Your task to perform on an android device: Do I have any events this weekend? Image 0: 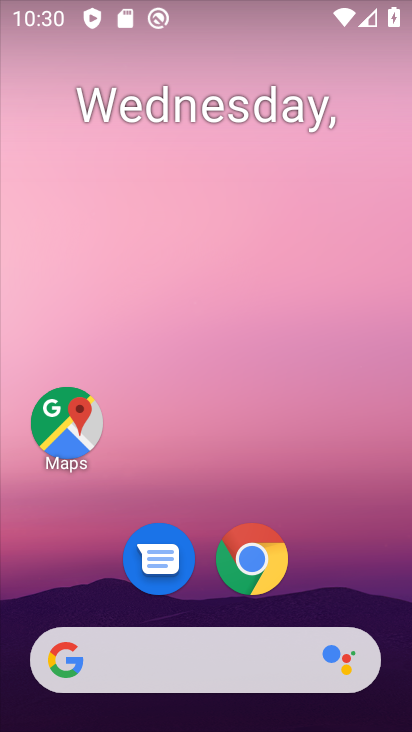
Step 0: drag from (319, 588) to (319, 46)
Your task to perform on an android device: Do I have any events this weekend? Image 1: 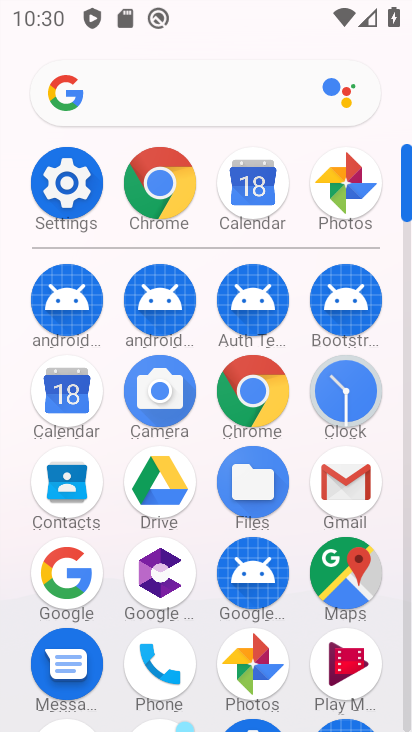
Step 1: click (60, 411)
Your task to perform on an android device: Do I have any events this weekend? Image 2: 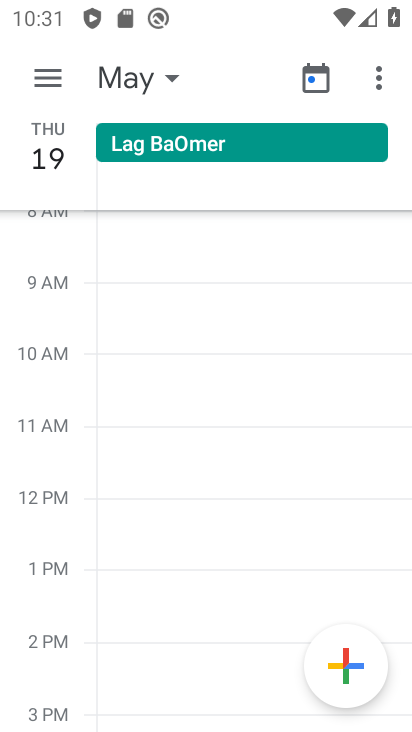
Step 2: click (112, 75)
Your task to perform on an android device: Do I have any events this weekend? Image 3: 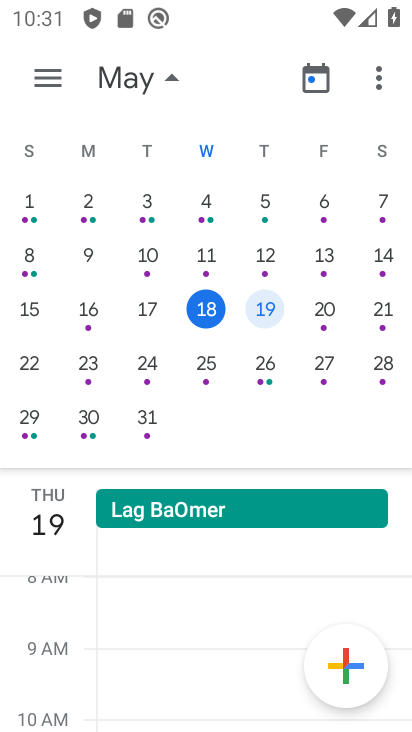
Step 3: click (322, 322)
Your task to perform on an android device: Do I have any events this weekend? Image 4: 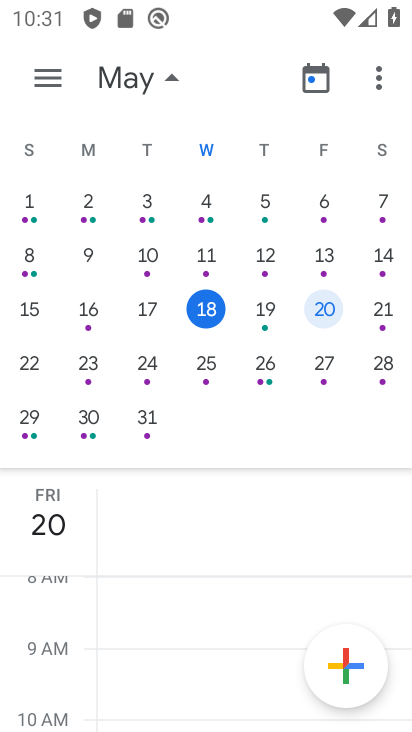
Step 4: task complete